Your task to perform on an android device: turn on improve location accuracy Image 0: 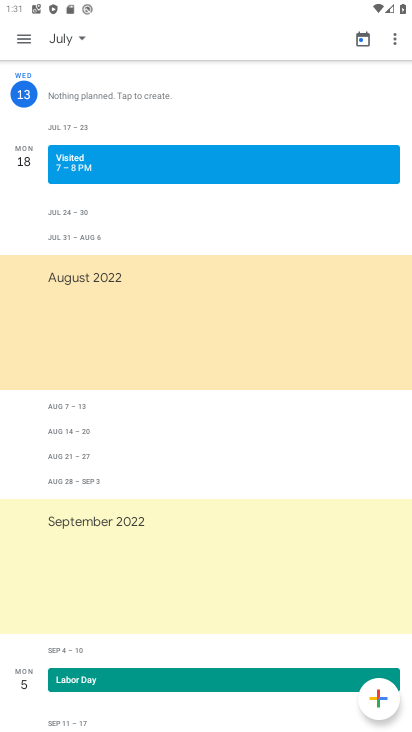
Step 0: press home button
Your task to perform on an android device: turn on improve location accuracy Image 1: 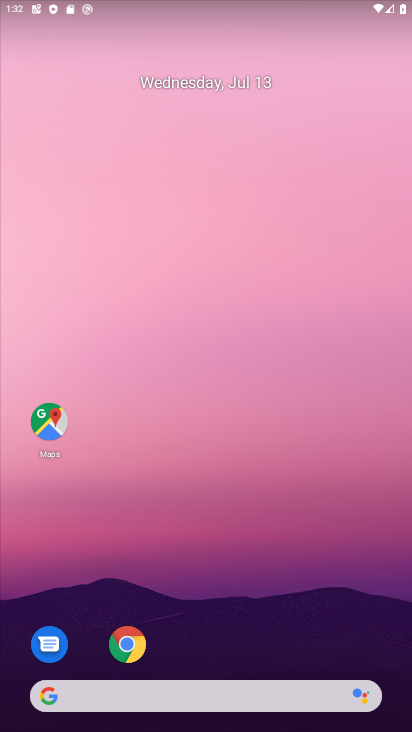
Step 1: drag from (298, 646) to (248, 104)
Your task to perform on an android device: turn on improve location accuracy Image 2: 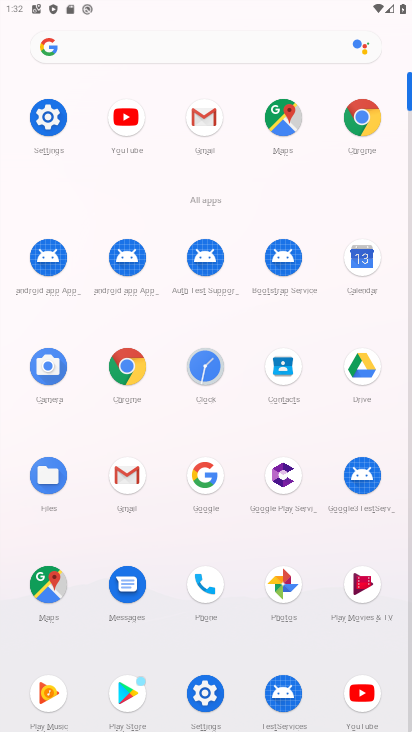
Step 2: click (57, 123)
Your task to perform on an android device: turn on improve location accuracy Image 3: 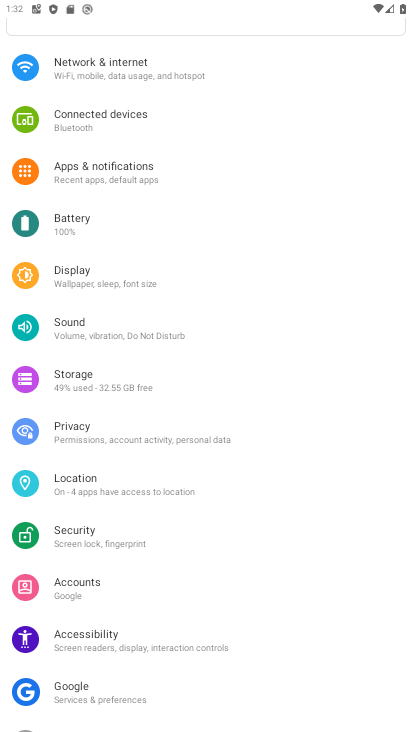
Step 3: click (129, 489)
Your task to perform on an android device: turn on improve location accuracy Image 4: 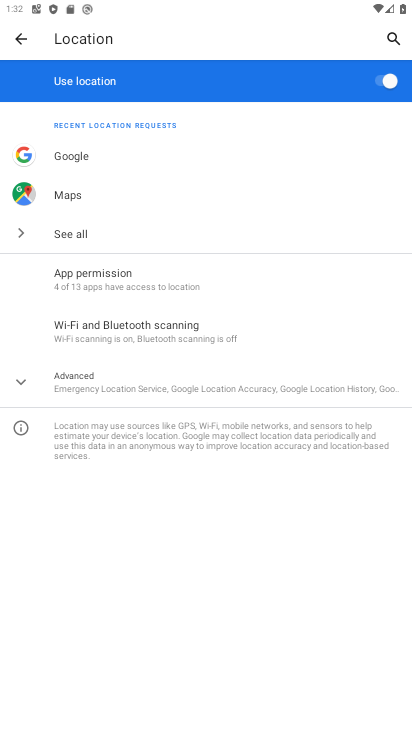
Step 4: click (79, 392)
Your task to perform on an android device: turn on improve location accuracy Image 5: 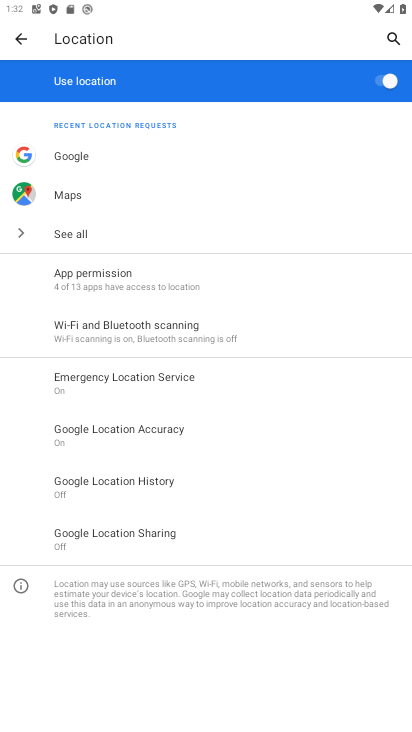
Step 5: click (96, 438)
Your task to perform on an android device: turn on improve location accuracy Image 6: 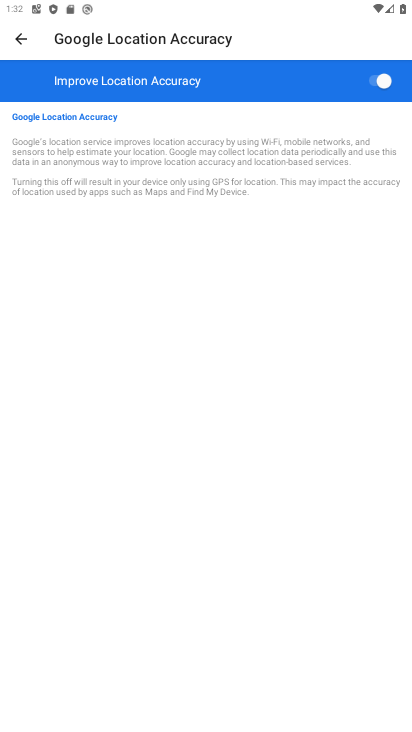
Step 6: task complete